Your task to perform on an android device: What's on my calendar today? Image 0: 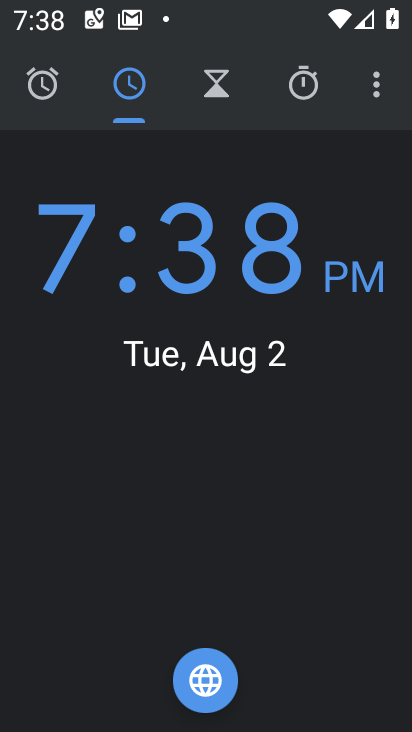
Step 0: press home button
Your task to perform on an android device: What's on my calendar today? Image 1: 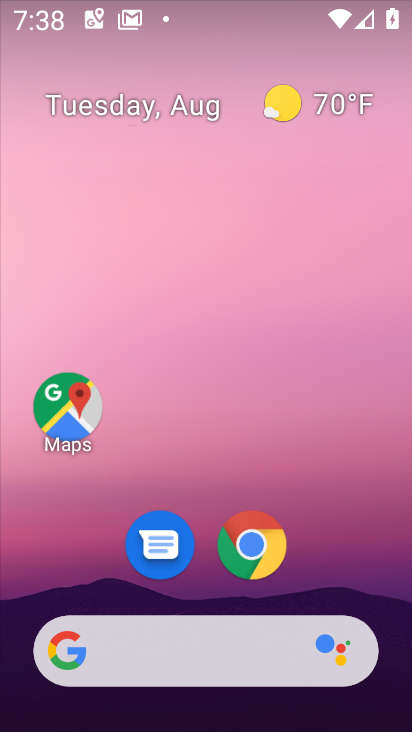
Step 1: drag from (255, 257) to (281, 100)
Your task to perform on an android device: What's on my calendar today? Image 2: 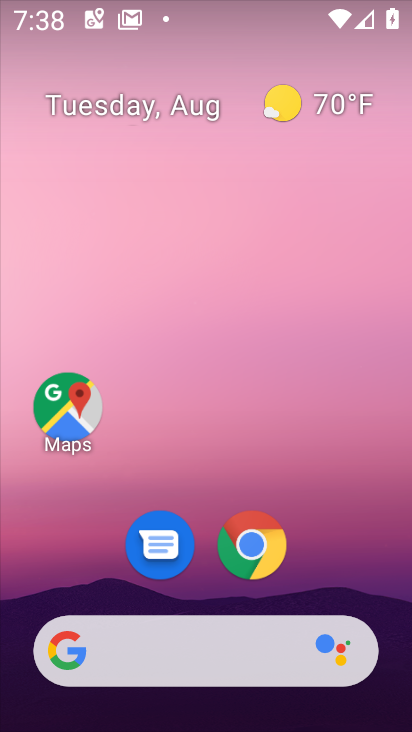
Step 2: drag from (199, 663) to (179, 173)
Your task to perform on an android device: What's on my calendar today? Image 3: 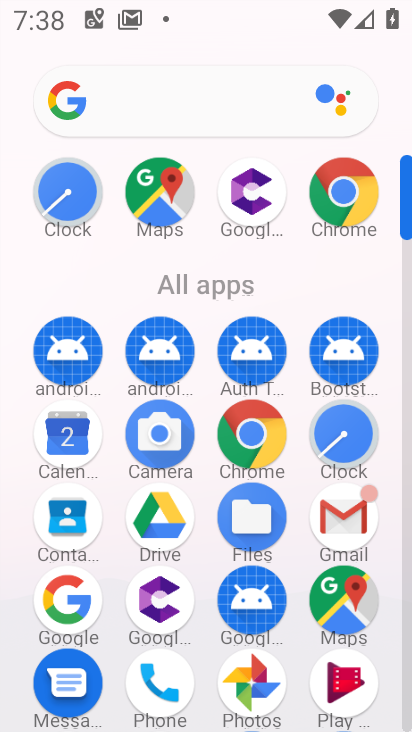
Step 3: drag from (199, 480) to (227, 258)
Your task to perform on an android device: What's on my calendar today? Image 4: 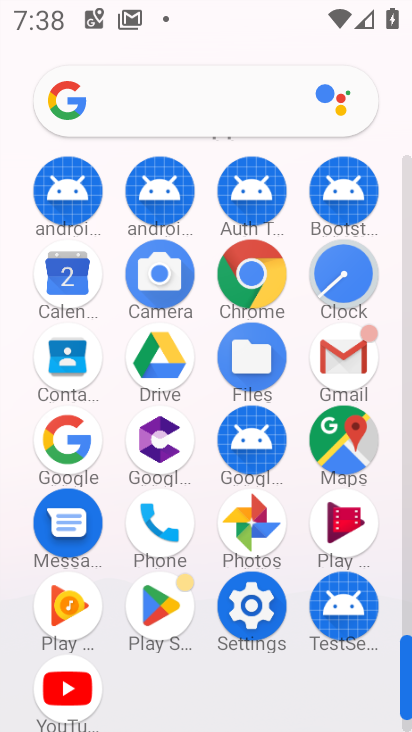
Step 4: click (61, 275)
Your task to perform on an android device: What's on my calendar today? Image 5: 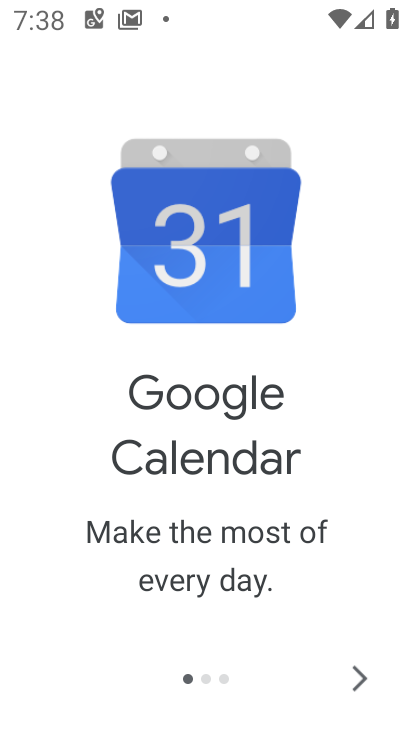
Step 5: click (365, 684)
Your task to perform on an android device: What's on my calendar today? Image 6: 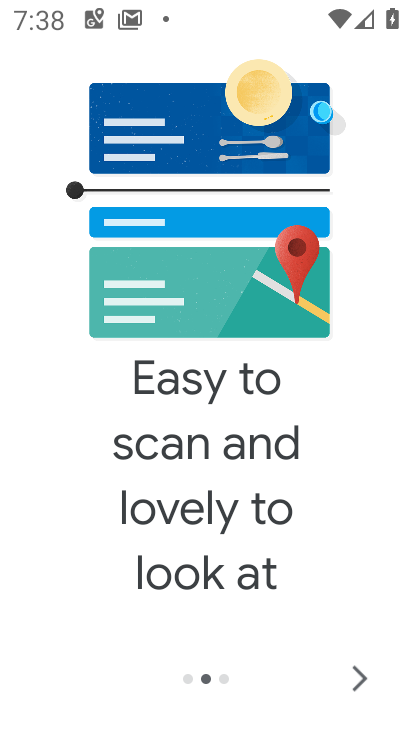
Step 6: click (364, 681)
Your task to perform on an android device: What's on my calendar today? Image 7: 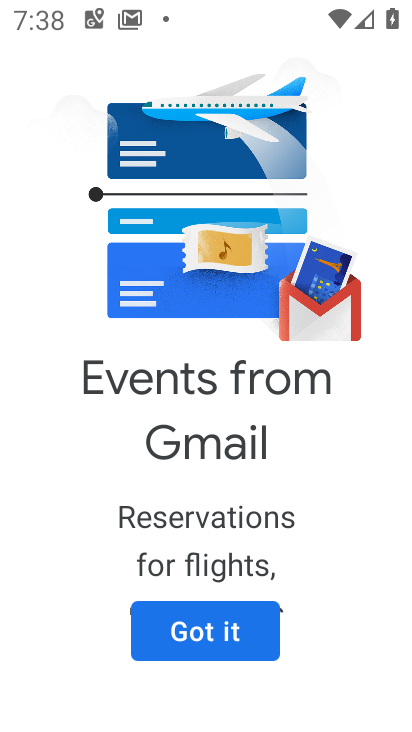
Step 7: click (161, 638)
Your task to perform on an android device: What's on my calendar today? Image 8: 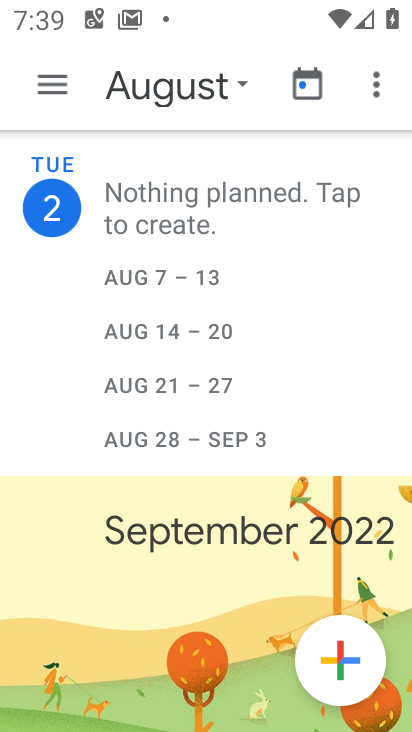
Step 8: task complete